Your task to perform on an android device: turn on wifi Image 0: 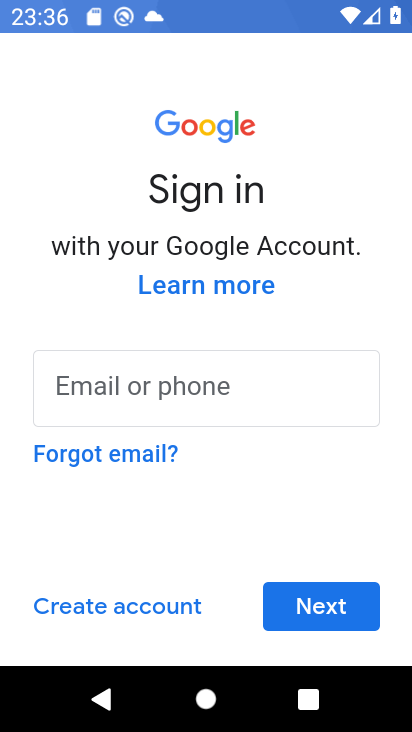
Step 0: press home button
Your task to perform on an android device: turn on wifi Image 1: 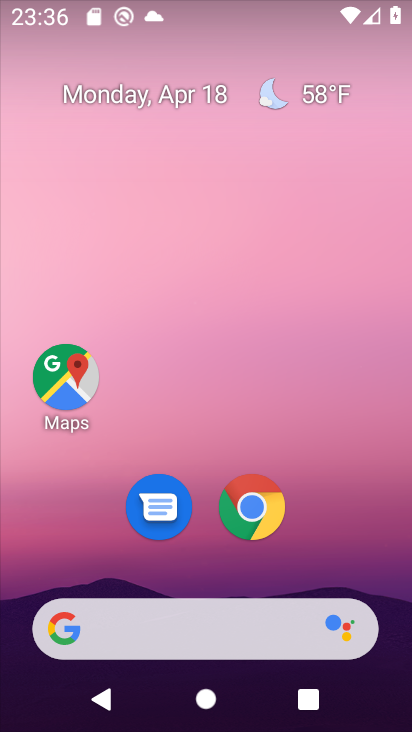
Step 1: drag from (205, 548) to (333, 1)
Your task to perform on an android device: turn on wifi Image 2: 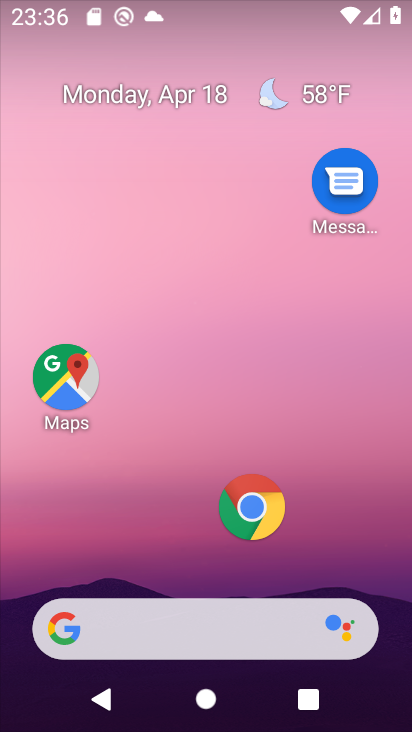
Step 2: drag from (183, 570) to (274, 76)
Your task to perform on an android device: turn on wifi Image 3: 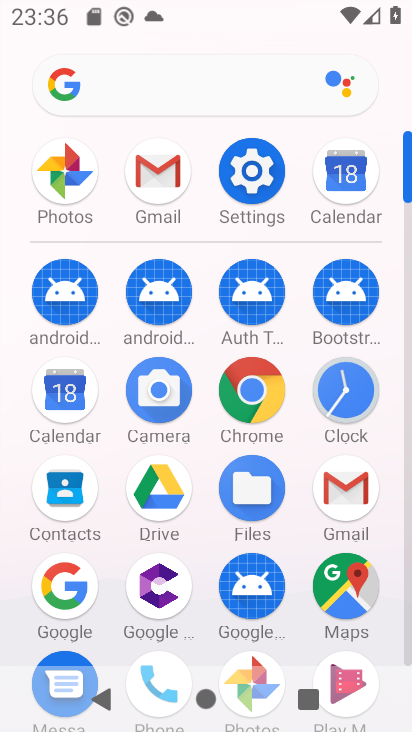
Step 3: click (248, 186)
Your task to perform on an android device: turn on wifi Image 4: 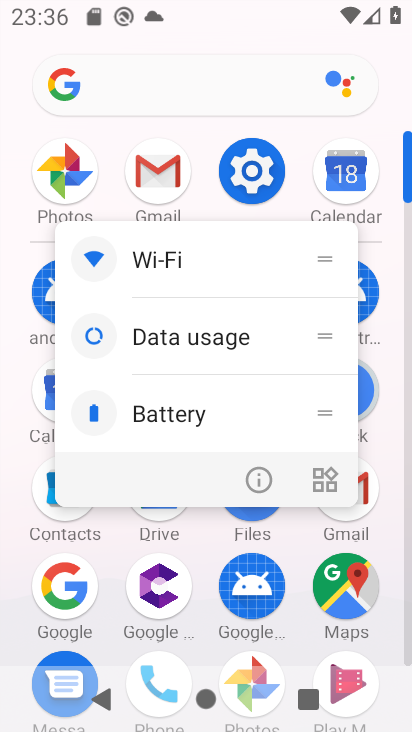
Step 4: click (247, 187)
Your task to perform on an android device: turn on wifi Image 5: 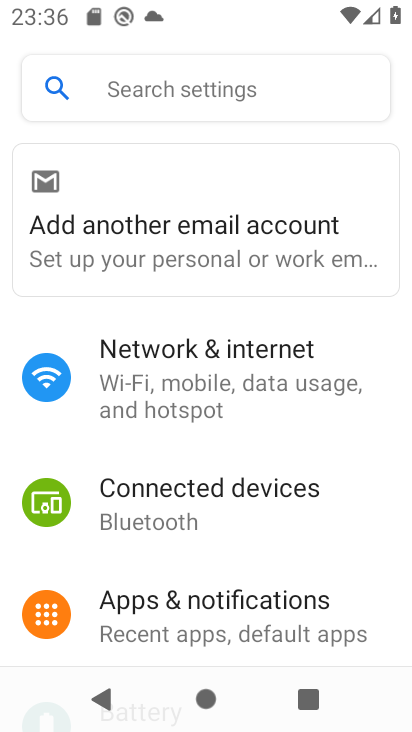
Step 5: click (198, 403)
Your task to perform on an android device: turn on wifi Image 6: 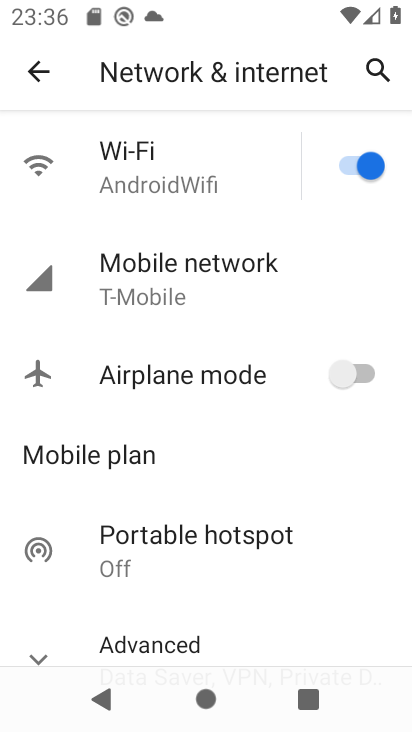
Step 6: task complete